Your task to perform on an android device: open a new tab in the chrome app Image 0: 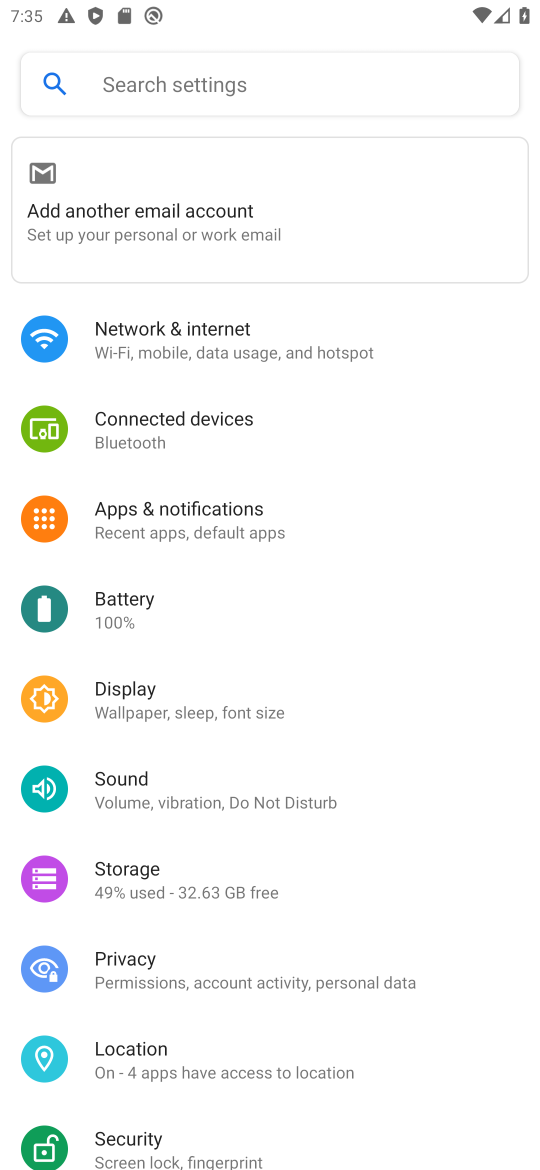
Step 0: press home button
Your task to perform on an android device: open a new tab in the chrome app Image 1: 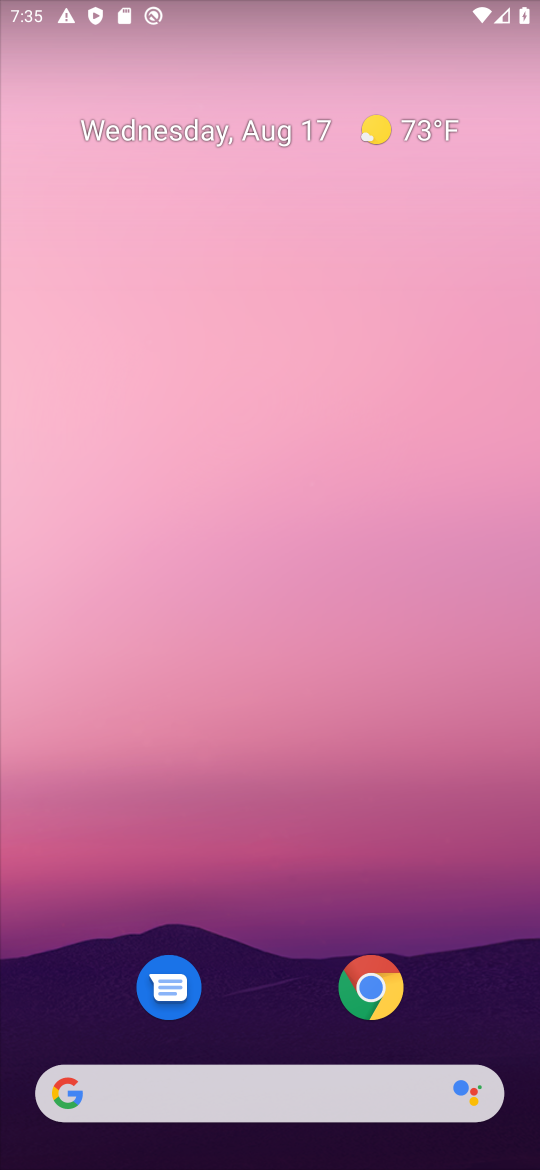
Step 1: drag from (466, 962) to (312, 29)
Your task to perform on an android device: open a new tab in the chrome app Image 2: 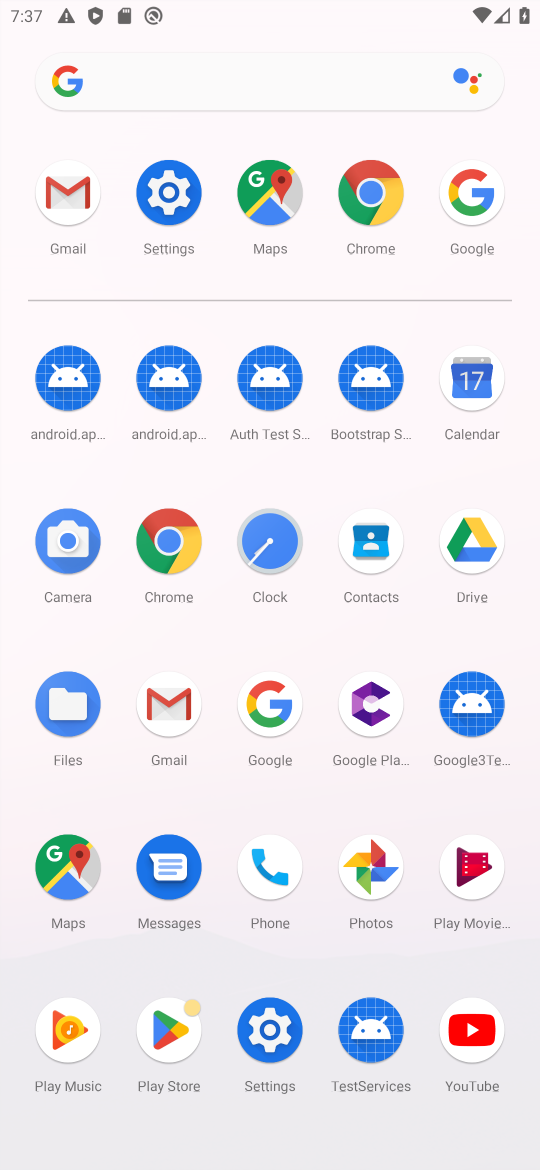
Step 2: click (200, 523)
Your task to perform on an android device: open a new tab in the chrome app Image 3: 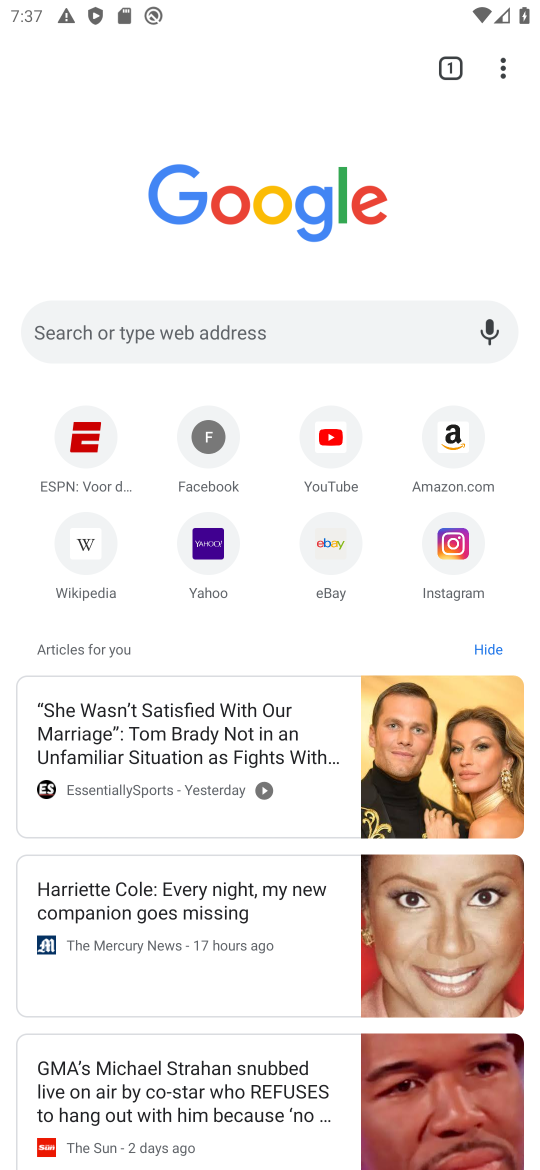
Step 3: click (506, 60)
Your task to perform on an android device: open a new tab in the chrome app Image 4: 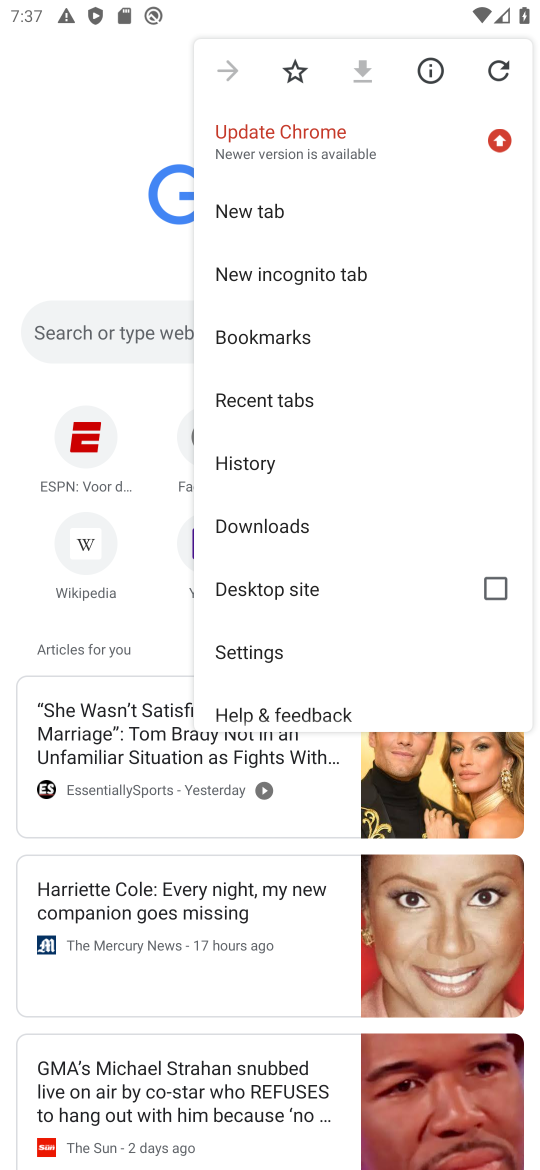
Step 4: click (313, 206)
Your task to perform on an android device: open a new tab in the chrome app Image 5: 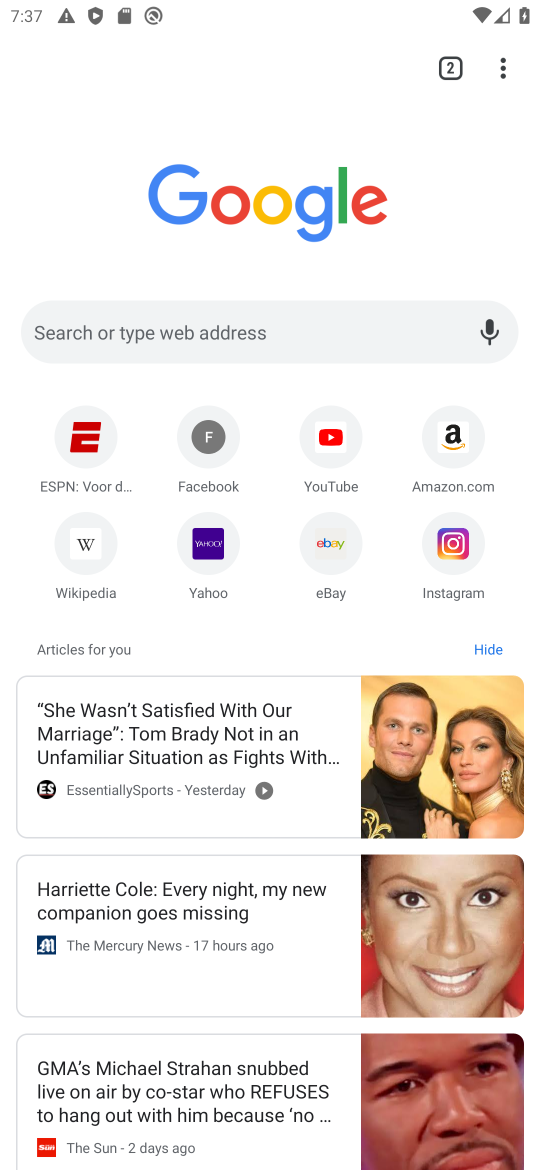
Step 5: task complete